Your task to perform on an android device: change your default location settings in chrome Image 0: 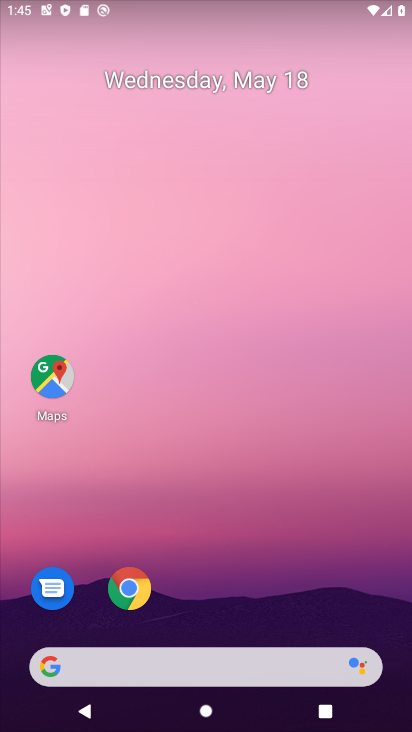
Step 0: drag from (367, 593) to (360, 286)
Your task to perform on an android device: change your default location settings in chrome Image 1: 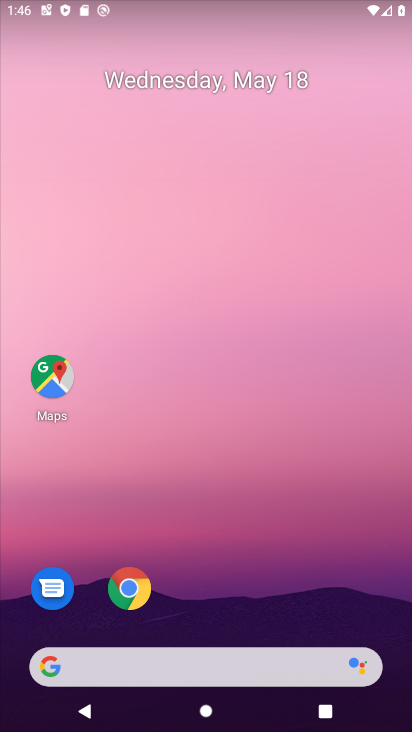
Step 1: drag from (342, 584) to (344, 241)
Your task to perform on an android device: change your default location settings in chrome Image 2: 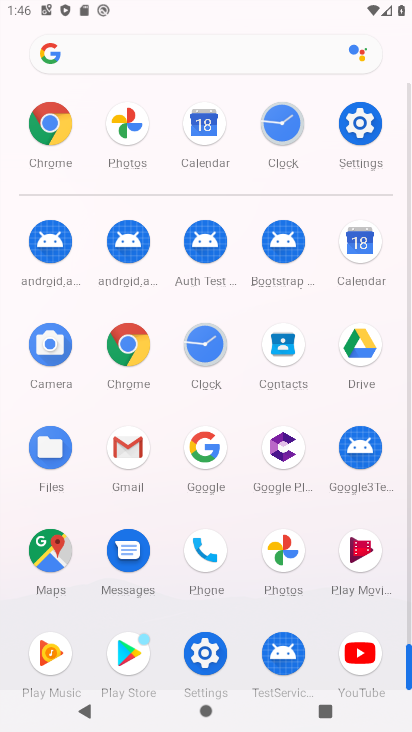
Step 2: click (126, 348)
Your task to perform on an android device: change your default location settings in chrome Image 3: 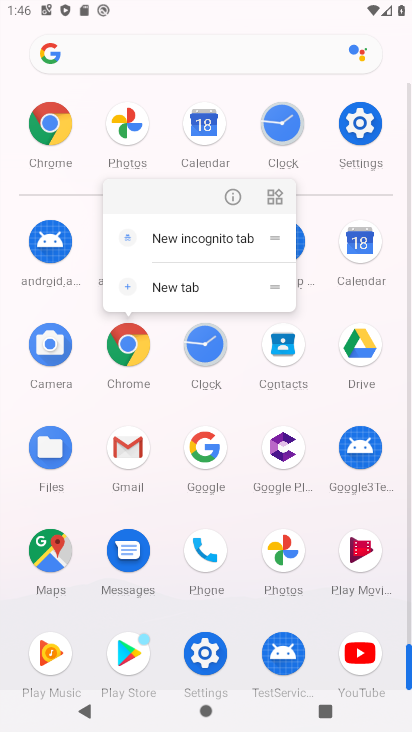
Step 3: click (126, 348)
Your task to perform on an android device: change your default location settings in chrome Image 4: 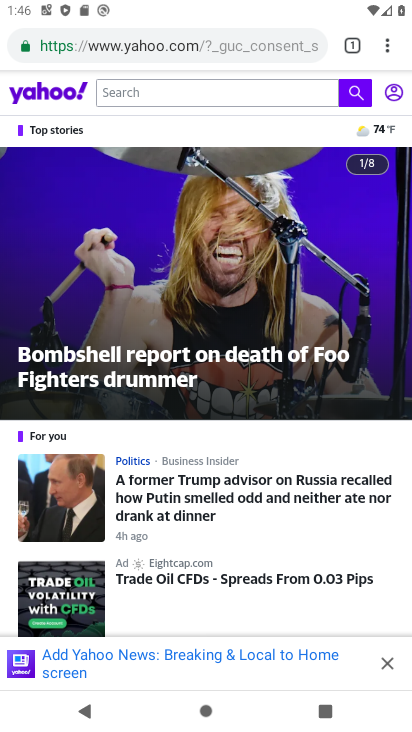
Step 4: click (384, 44)
Your task to perform on an android device: change your default location settings in chrome Image 5: 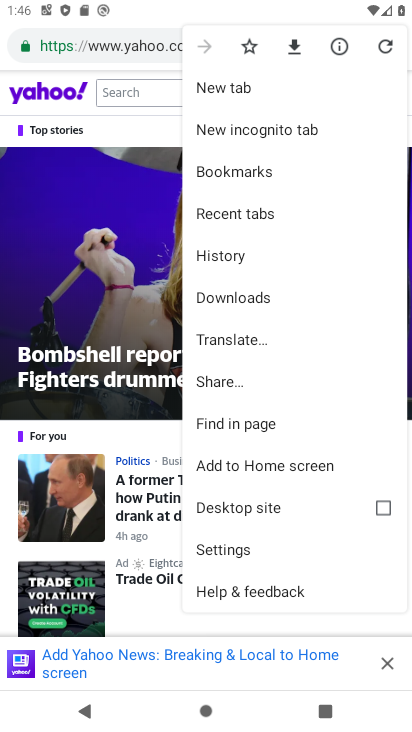
Step 5: click (241, 554)
Your task to perform on an android device: change your default location settings in chrome Image 6: 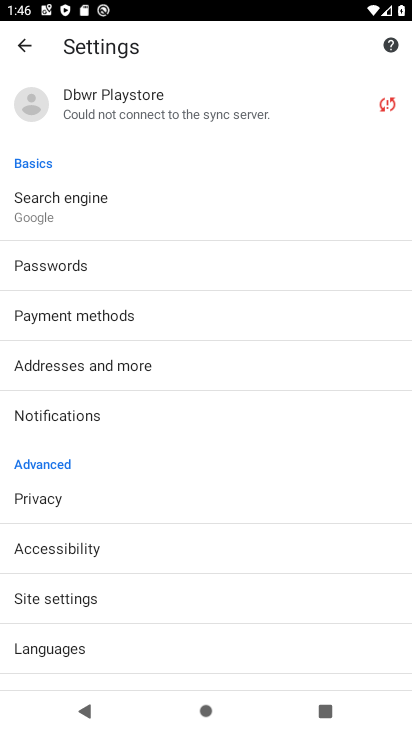
Step 6: drag from (241, 548) to (240, 466)
Your task to perform on an android device: change your default location settings in chrome Image 7: 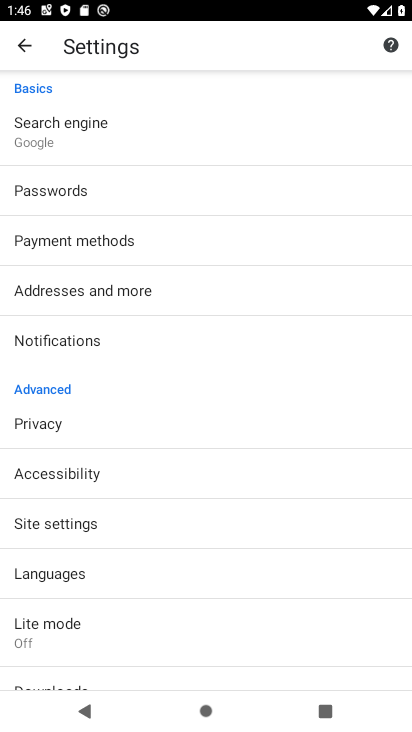
Step 7: drag from (254, 597) to (261, 519)
Your task to perform on an android device: change your default location settings in chrome Image 8: 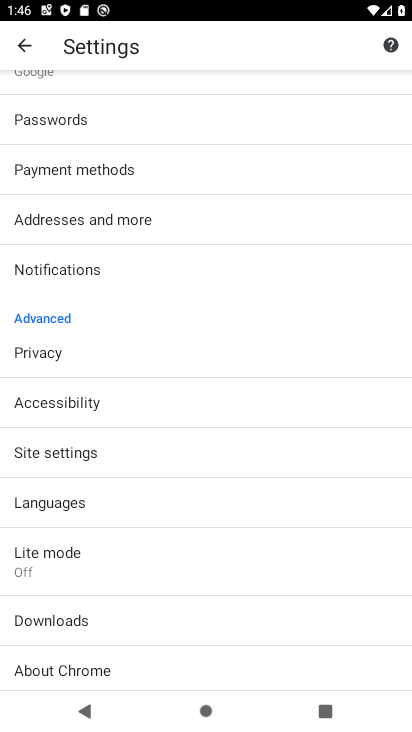
Step 8: drag from (275, 628) to (290, 546)
Your task to perform on an android device: change your default location settings in chrome Image 9: 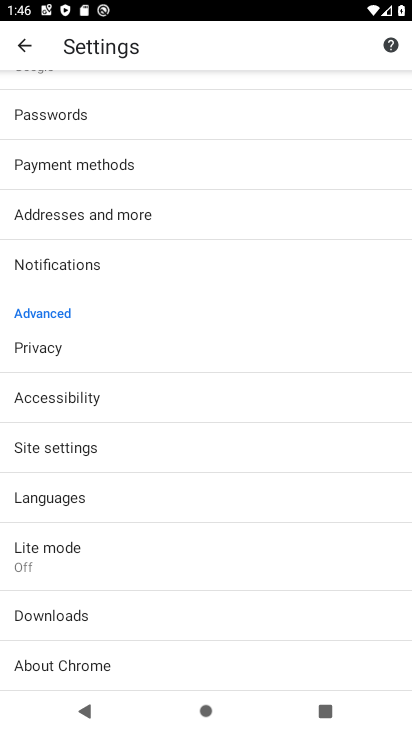
Step 9: drag from (271, 623) to (286, 512)
Your task to perform on an android device: change your default location settings in chrome Image 10: 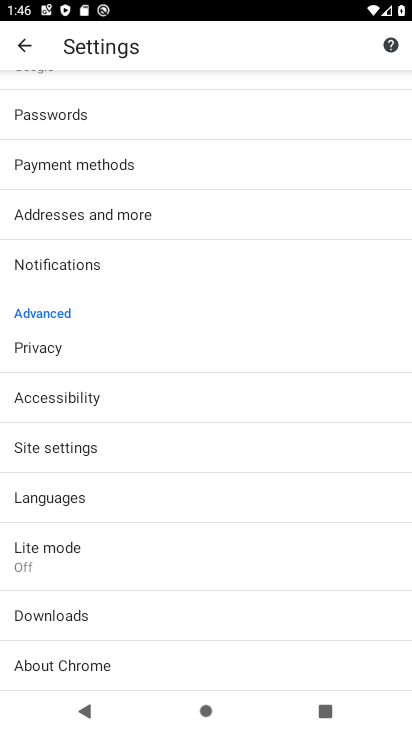
Step 10: click (258, 455)
Your task to perform on an android device: change your default location settings in chrome Image 11: 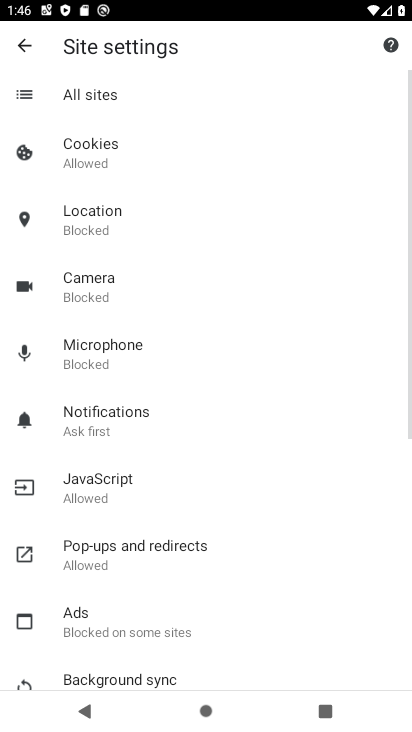
Step 11: drag from (293, 588) to (304, 502)
Your task to perform on an android device: change your default location settings in chrome Image 12: 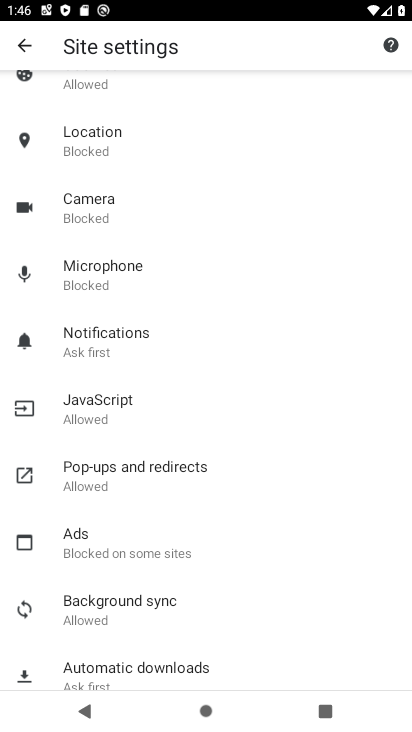
Step 12: drag from (312, 589) to (290, 459)
Your task to perform on an android device: change your default location settings in chrome Image 13: 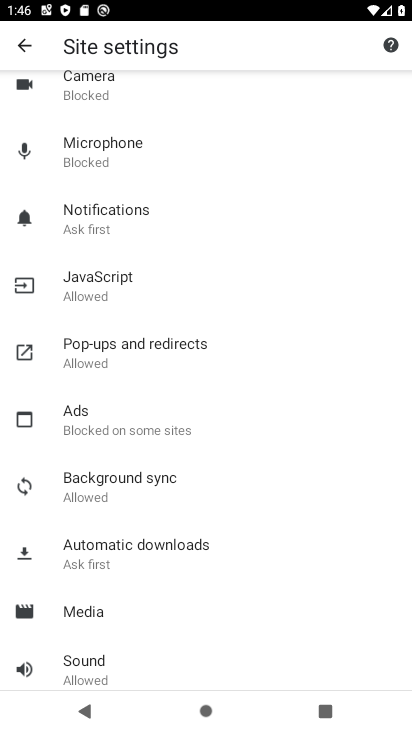
Step 13: drag from (288, 588) to (294, 442)
Your task to perform on an android device: change your default location settings in chrome Image 14: 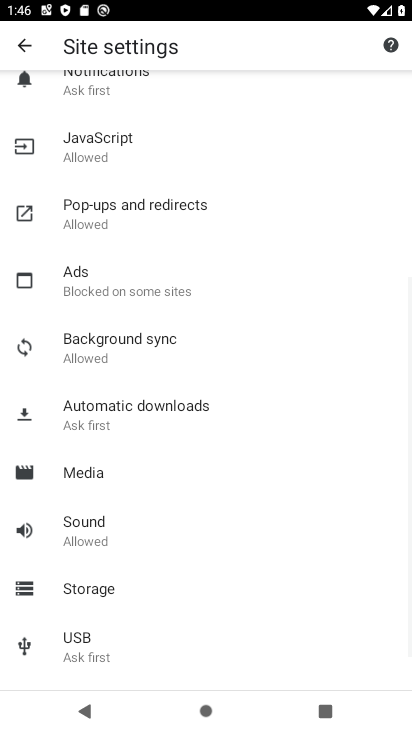
Step 14: drag from (306, 595) to (320, 449)
Your task to perform on an android device: change your default location settings in chrome Image 15: 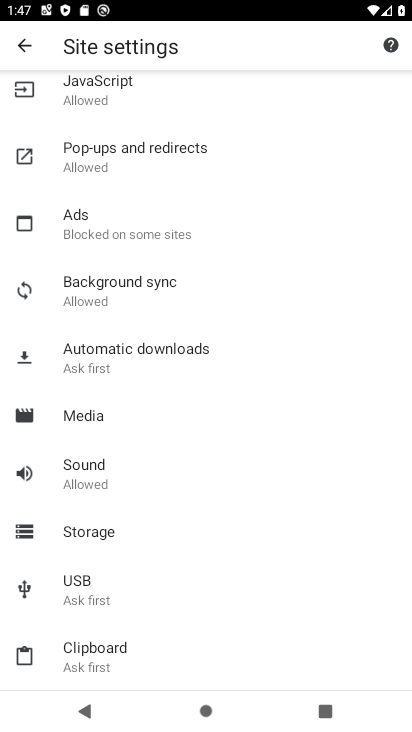
Step 15: drag from (295, 298) to (279, 417)
Your task to perform on an android device: change your default location settings in chrome Image 16: 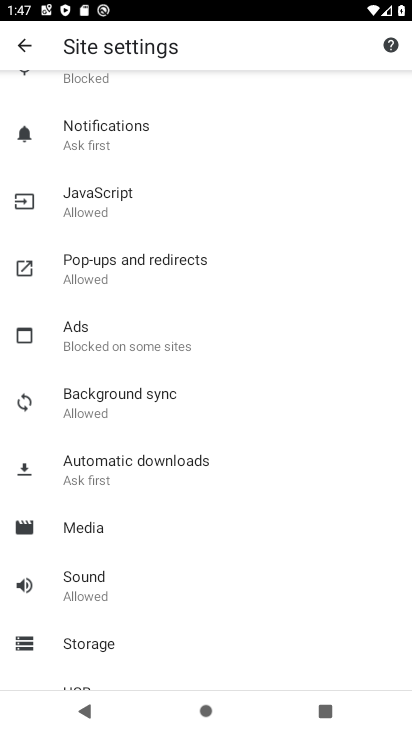
Step 16: drag from (283, 276) to (278, 402)
Your task to perform on an android device: change your default location settings in chrome Image 17: 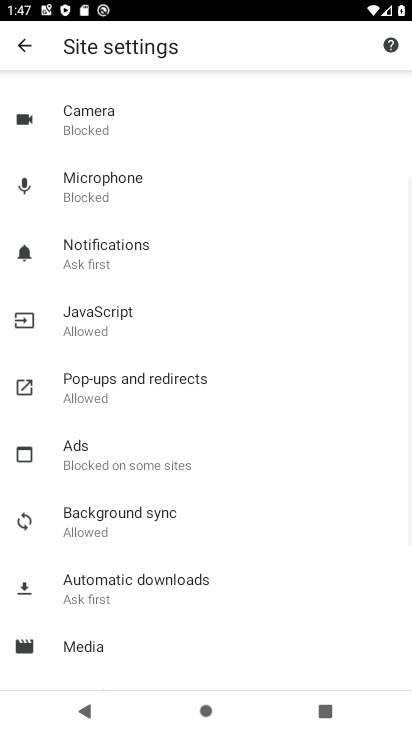
Step 17: drag from (286, 237) to (275, 408)
Your task to perform on an android device: change your default location settings in chrome Image 18: 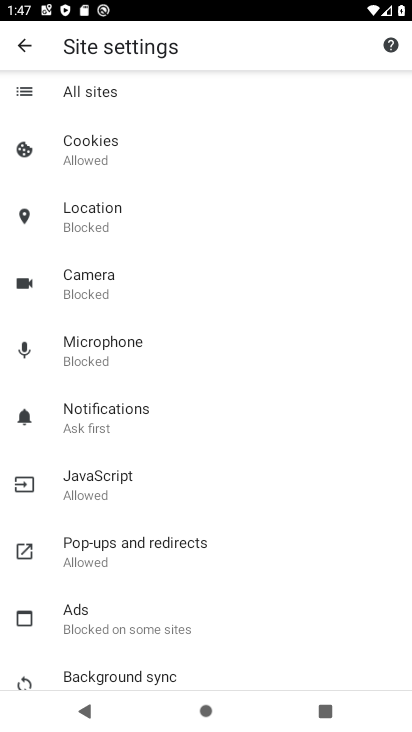
Step 18: drag from (282, 205) to (280, 386)
Your task to perform on an android device: change your default location settings in chrome Image 19: 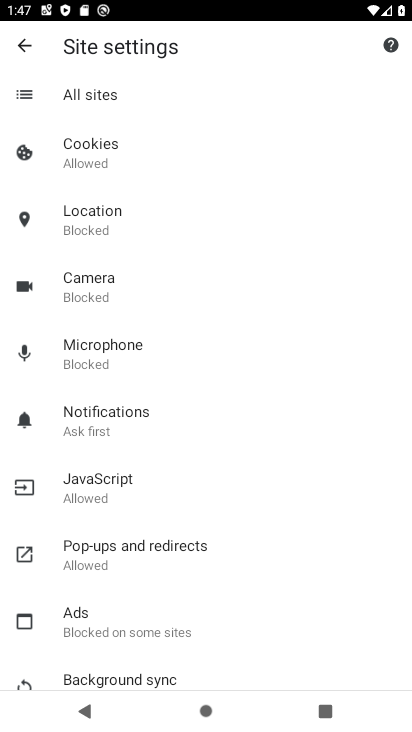
Step 19: click (83, 237)
Your task to perform on an android device: change your default location settings in chrome Image 20: 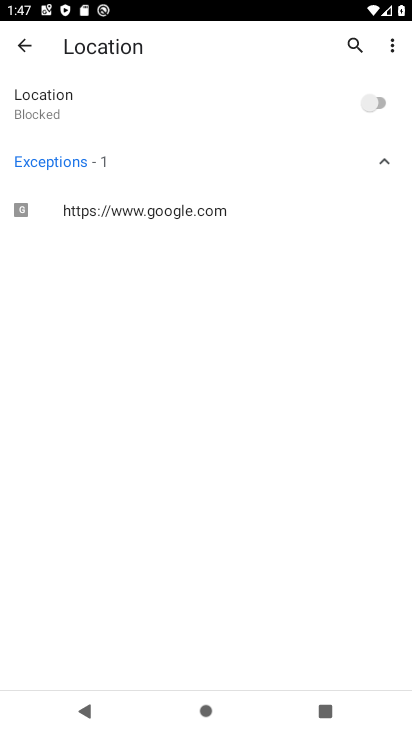
Step 20: click (363, 106)
Your task to perform on an android device: change your default location settings in chrome Image 21: 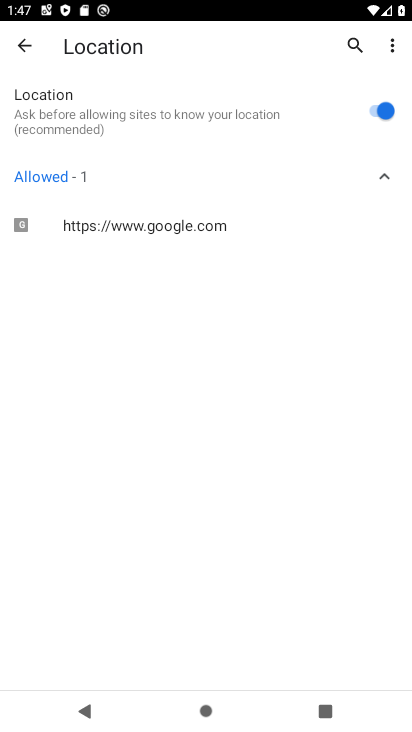
Step 21: task complete